Your task to perform on an android device: find which apps use the phone's location Image 0: 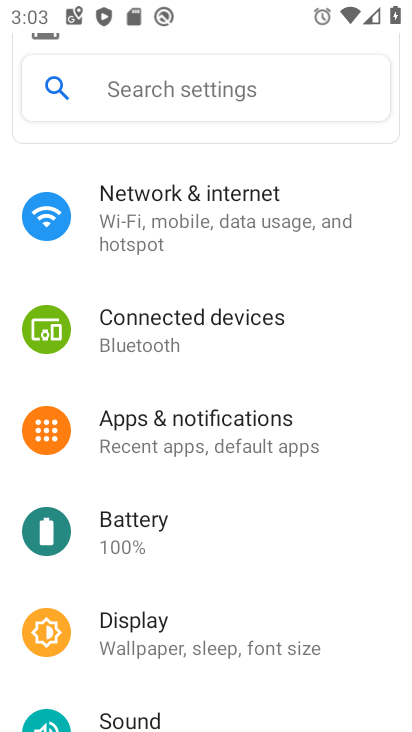
Step 0: press home button
Your task to perform on an android device: find which apps use the phone's location Image 1: 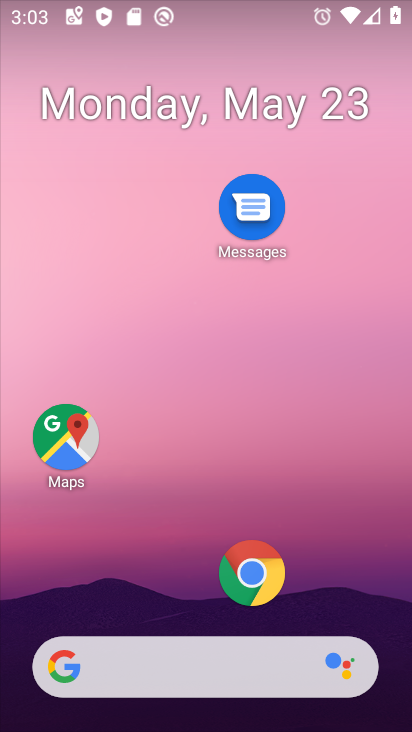
Step 1: drag from (311, 671) to (324, 66)
Your task to perform on an android device: find which apps use the phone's location Image 2: 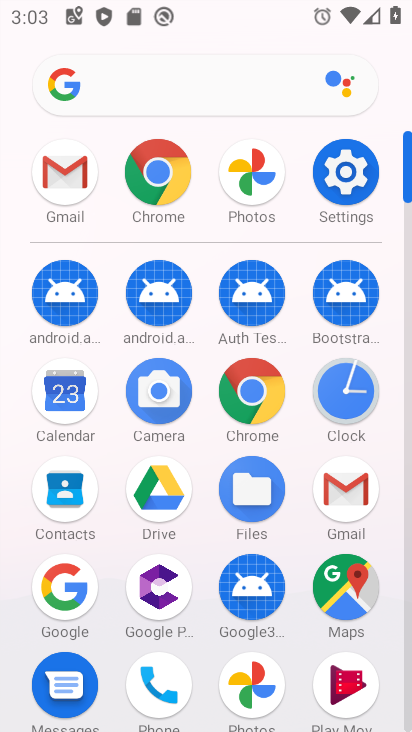
Step 2: click (359, 190)
Your task to perform on an android device: find which apps use the phone's location Image 3: 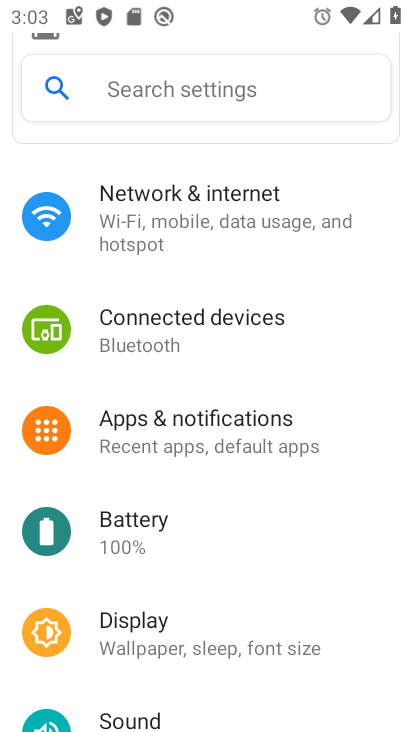
Step 3: drag from (236, 706) to (258, 125)
Your task to perform on an android device: find which apps use the phone's location Image 4: 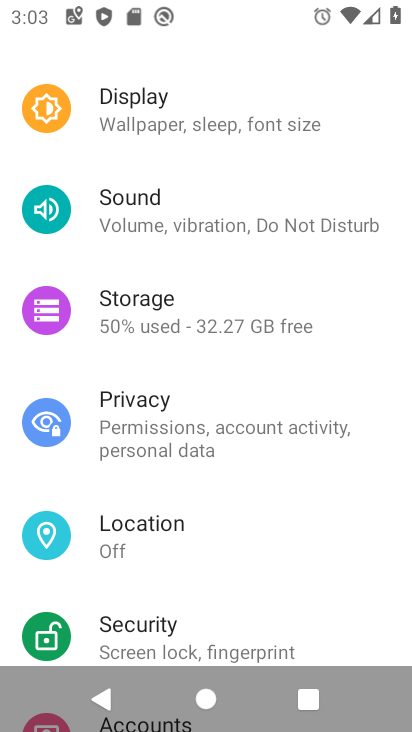
Step 4: click (191, 527)
Your task to perform on an android device: find which apps use the phone's location Image 5: 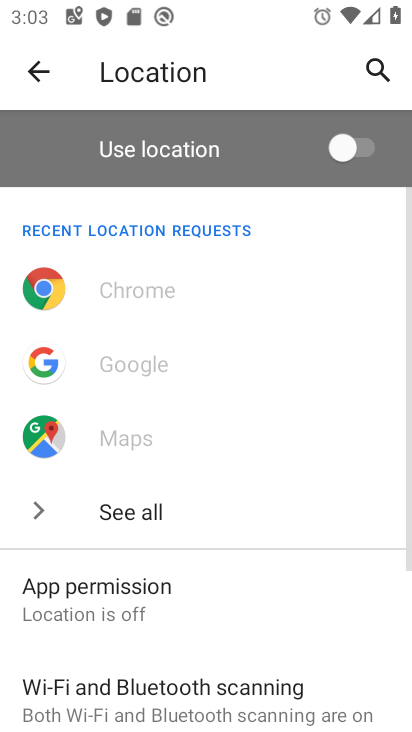
Step 5: drag from (264, 652) to (272, 38)
Your task to perform on an android device: find which apps use the phone's location Image 6: 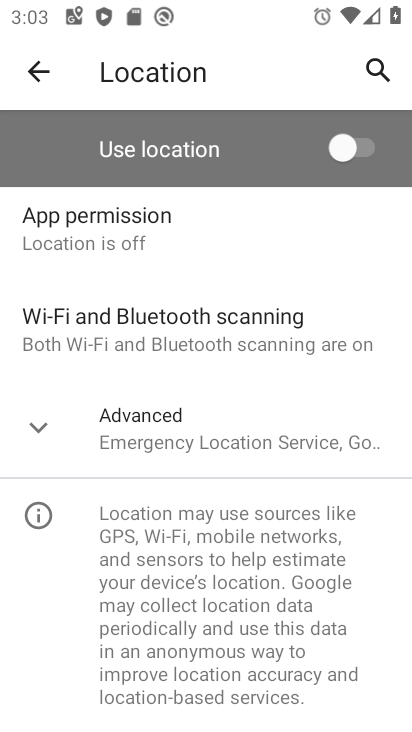
Step 6: click (186, 439)
Your task to perform on an android device: find which apps use the phone's location Image 7: 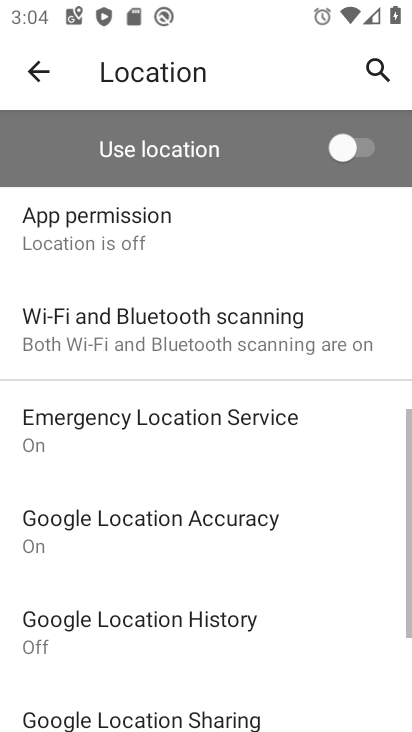
Step 7: click (139, 241)
Your task to perform on an android device: find which apps use the phone's location Image 8: 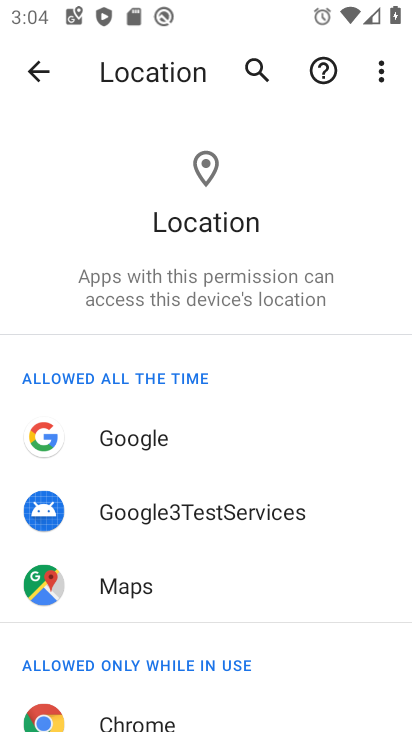
Step 8: drag from (290, 597) to (241, 95)
Your task to perform on an android device: find which apps use the phone's location Image 9: 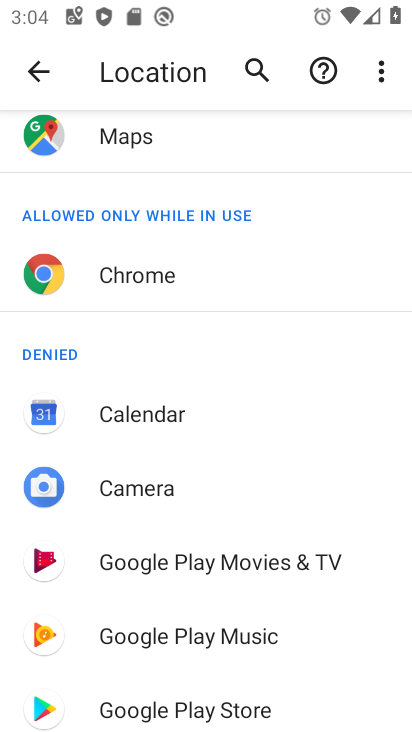
Step 9: drag from (207, 332) to (195, 689)
Your task to perform on an android device: find which apps use the phone's location Image 10: 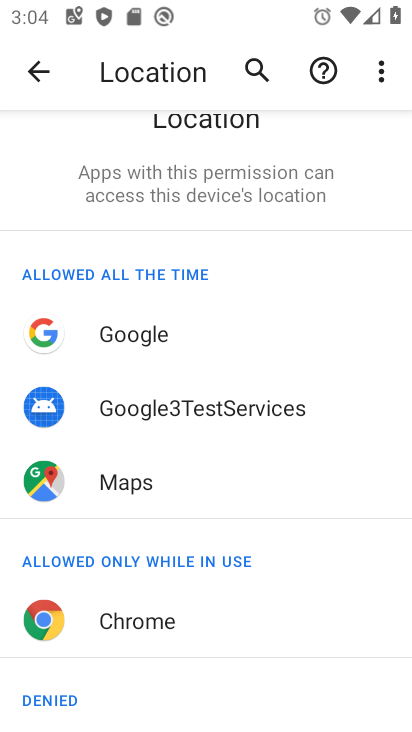
Step 10: click (159, 333)
Your task to perform on an android device: find which apps use the phone's location Image 11: 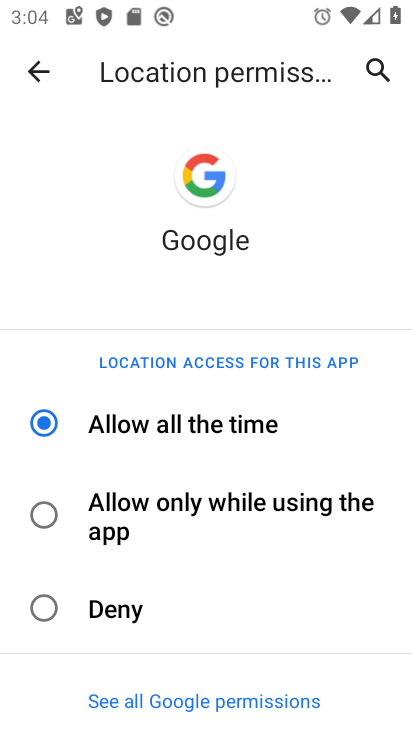
Step 11: task complete